Your task to perform on an android device: all mails in gmail Image 0: 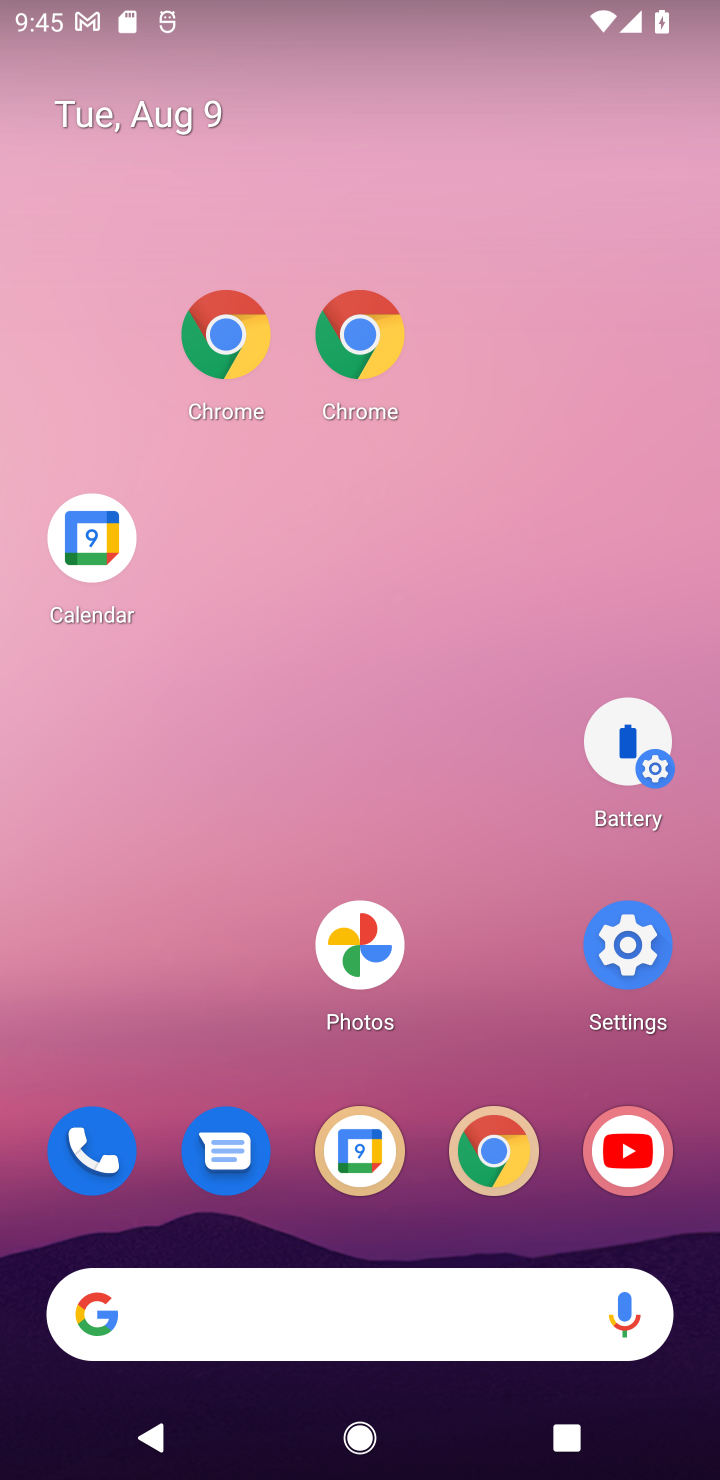
Step 0: click (315, 445)
Your task to perform on an android device: all mails in gmail Image 1: 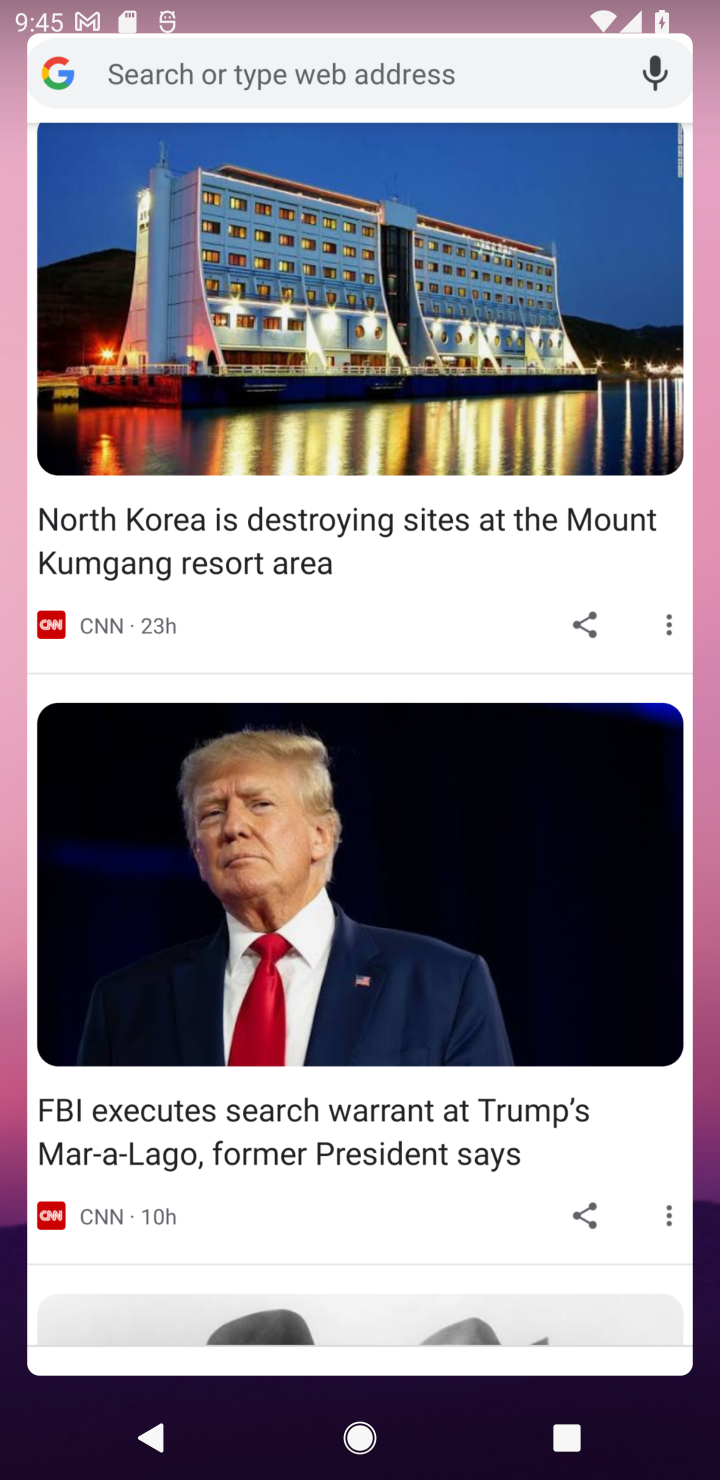
Step 1: press back button
Your task to perform on an android device: all mails in gmail Image 2: 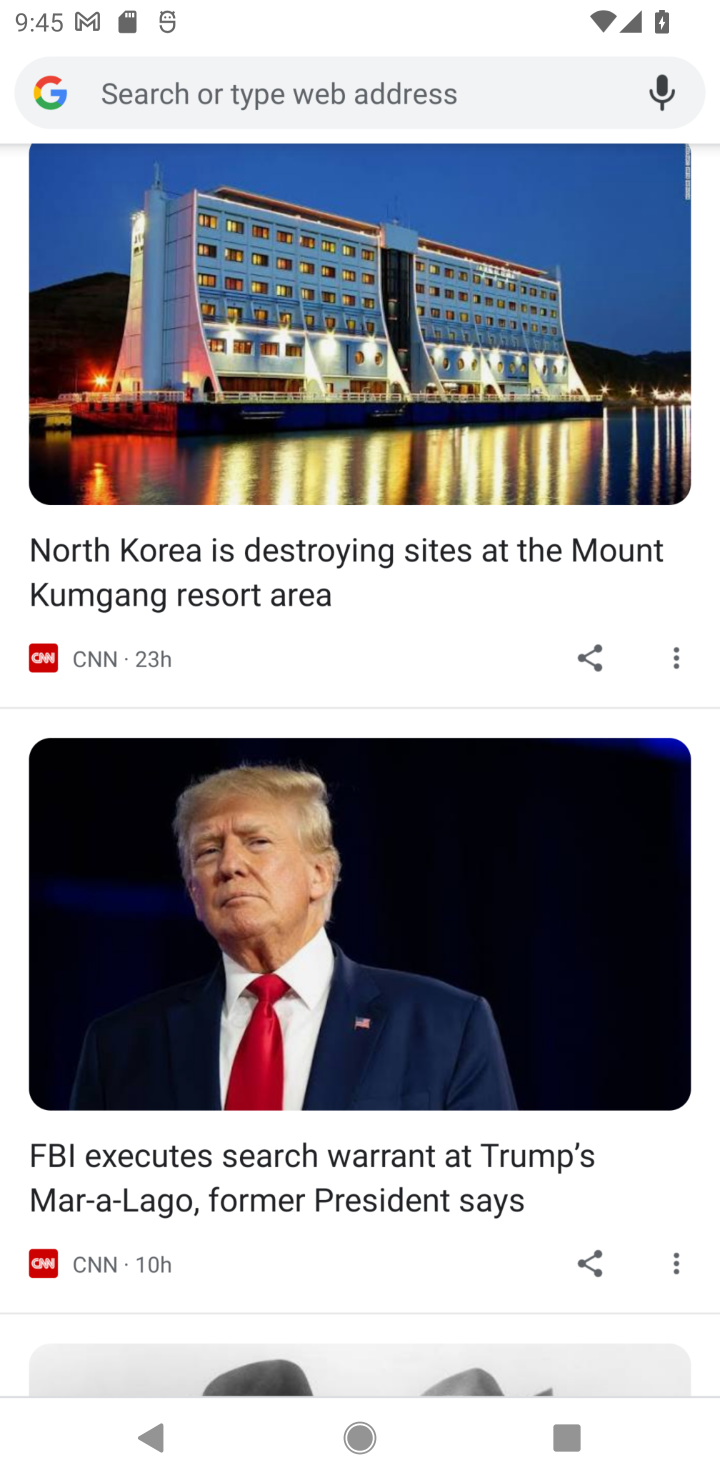
Step 2: drag from (409, 206) to (546, 400)
Your task to perform on an android device: all mails in gmail Image 3: 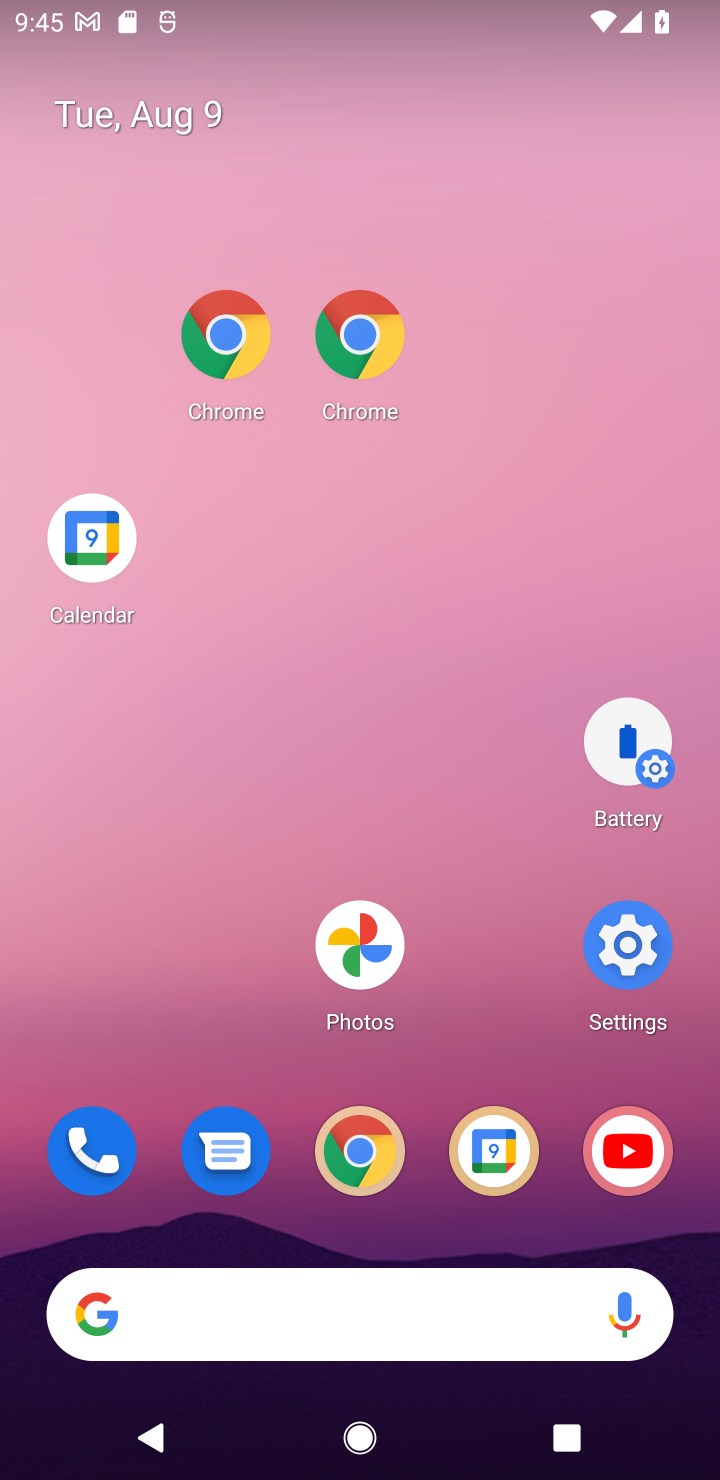
Step 3: press back button
Your task to perform on an android device: all mails in gmail Image 4: 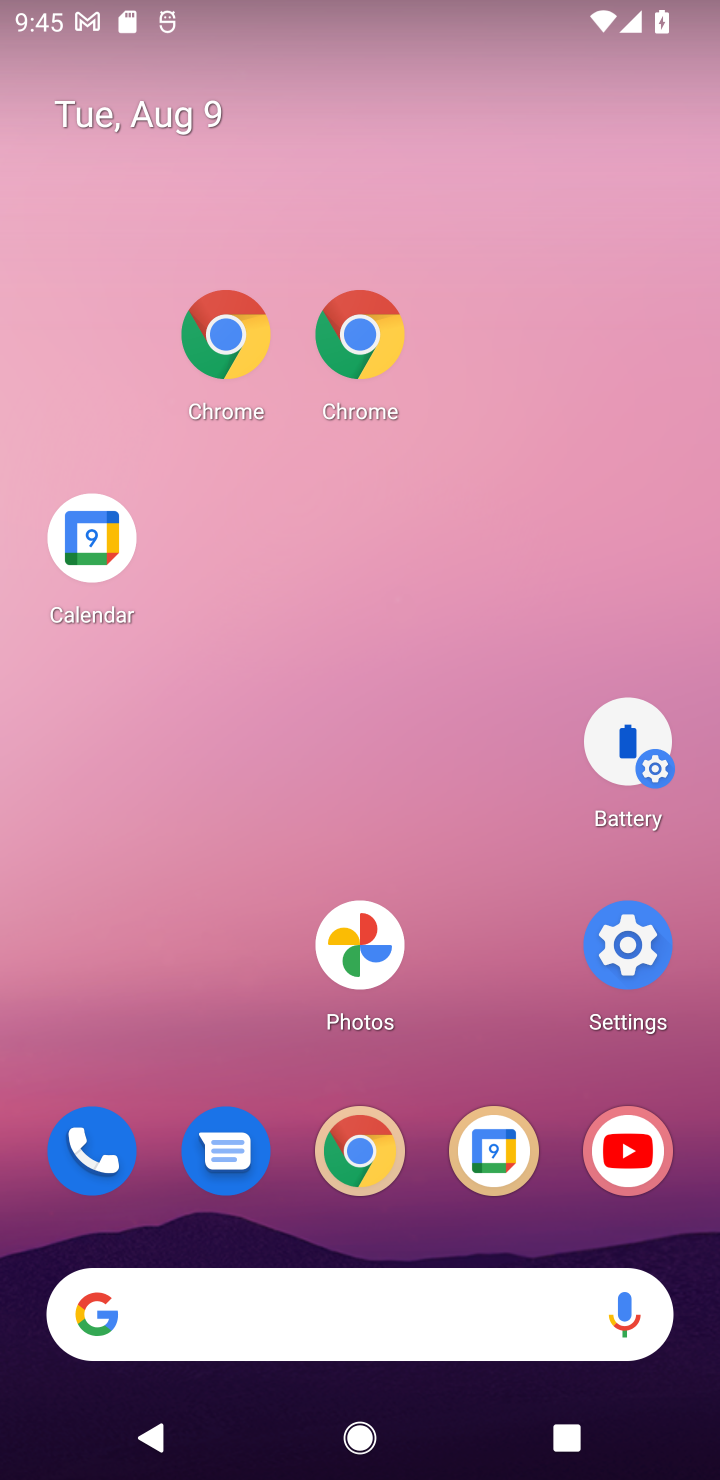
Step 4: press back button
Your task to perform on an android device: all mails in gmail Image 5: 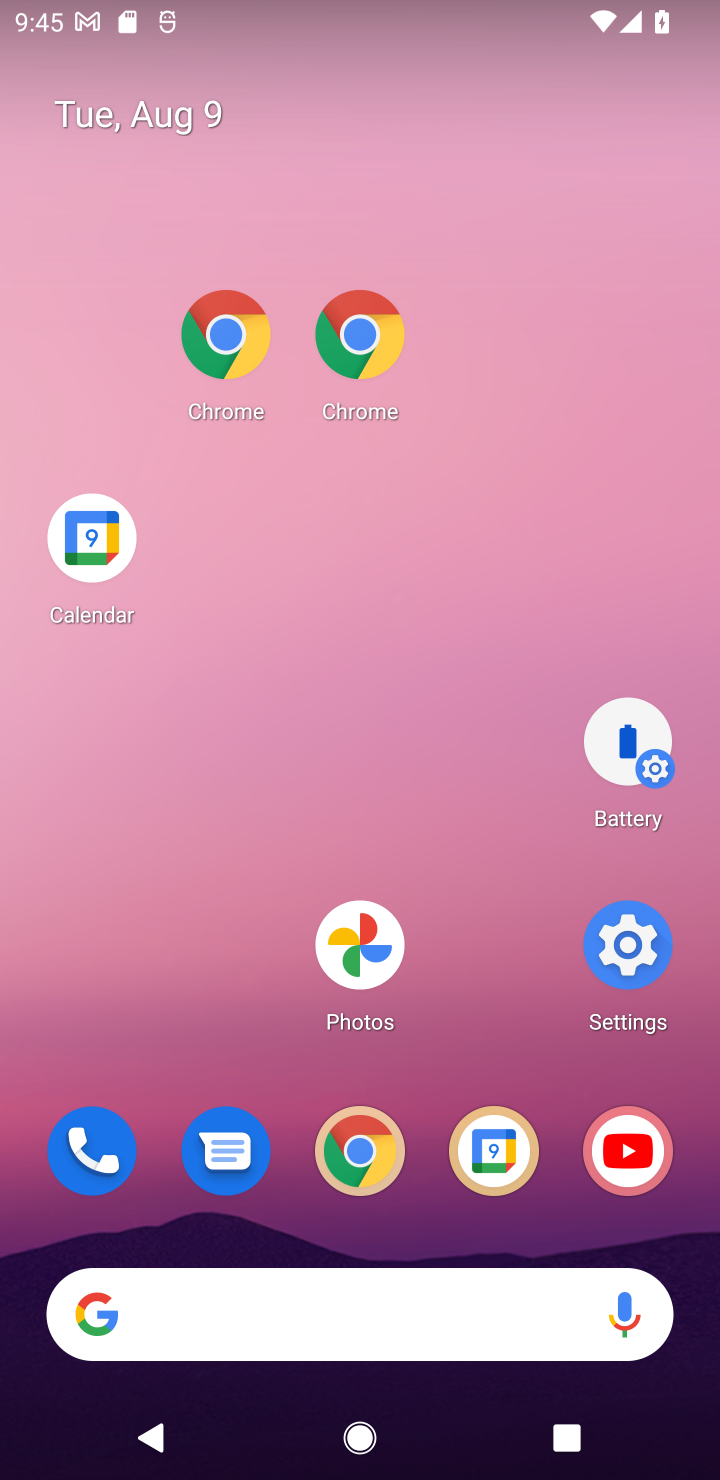
Step 5: click (618, 938)
Your task to perform on an android device: all mails in gmail Image 6: 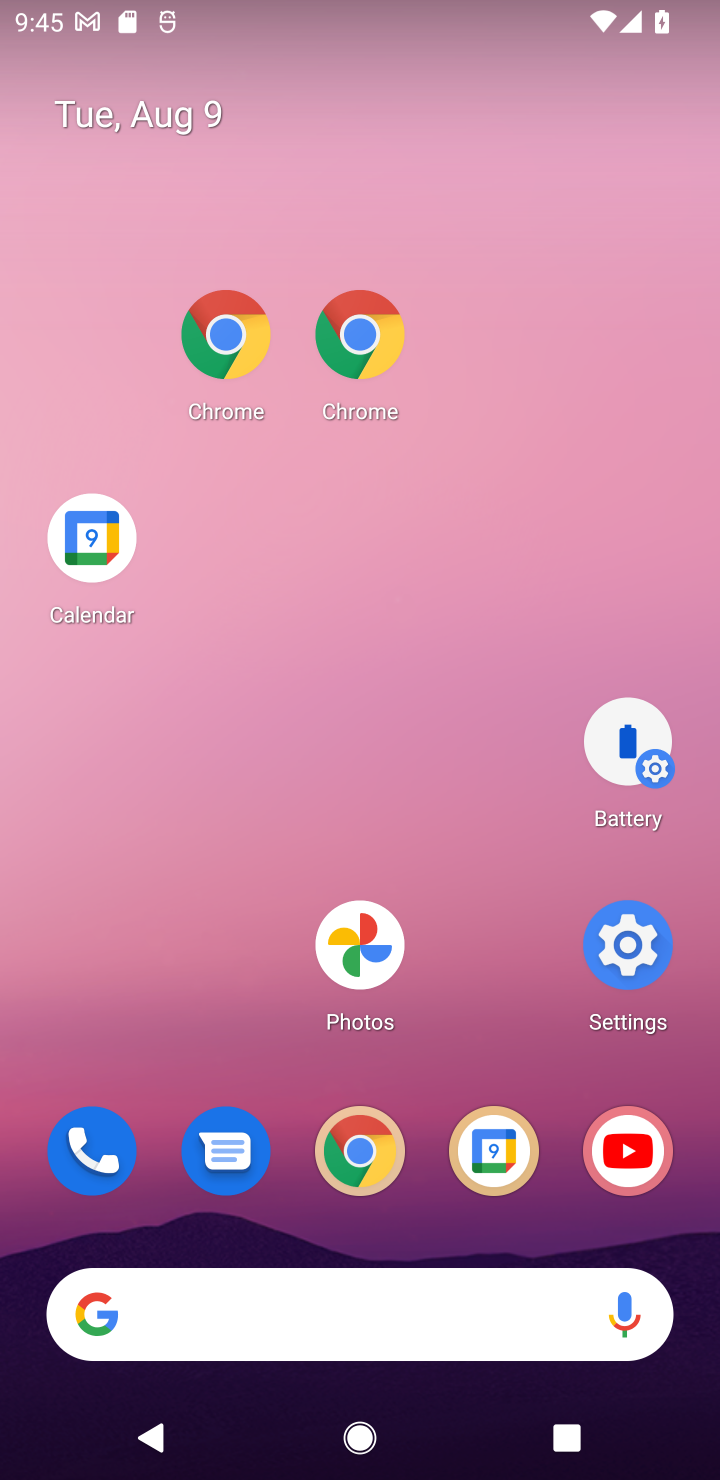
Step 6: click (614, 942)
Your task to perform on an android device: all mails in gmail Image 7: 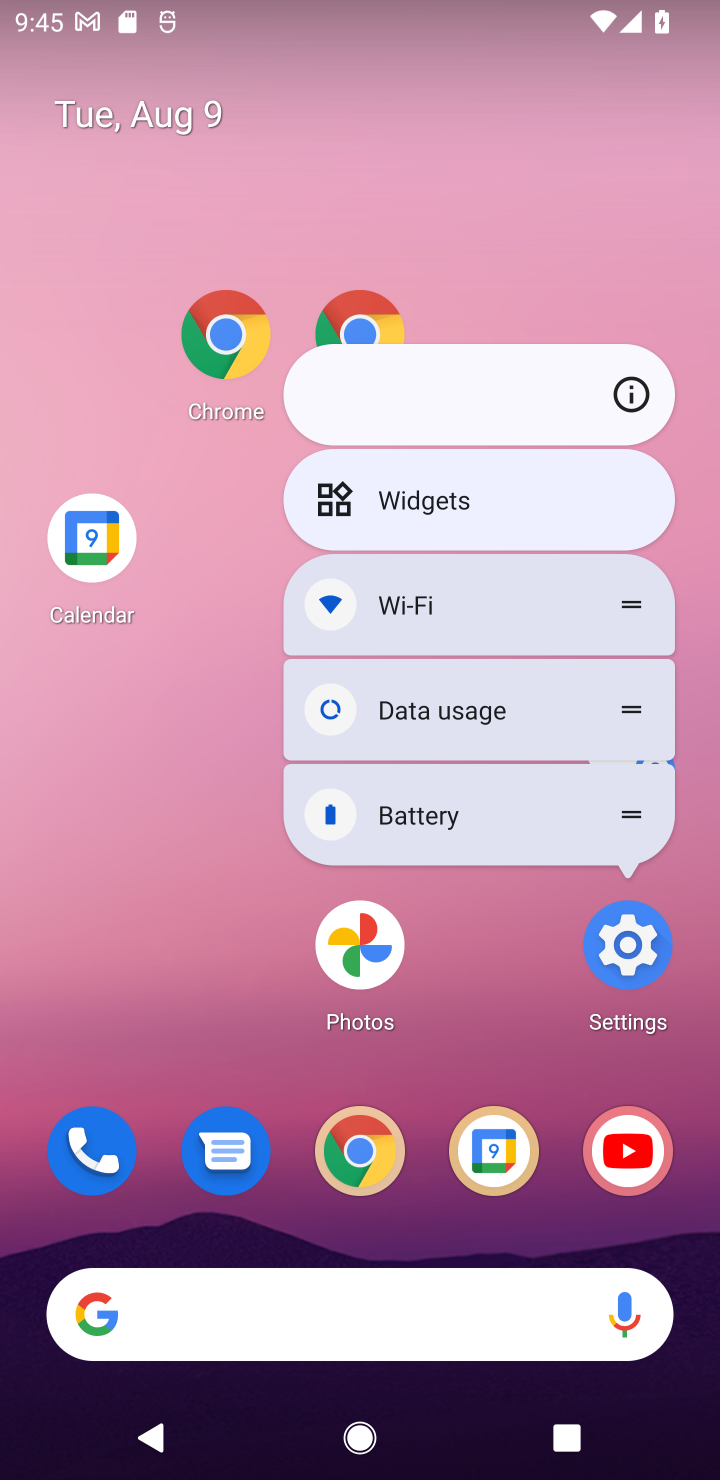
Step 7: click (81, 763)
Your task to perform on an android device: all mails in gmail Image 8: 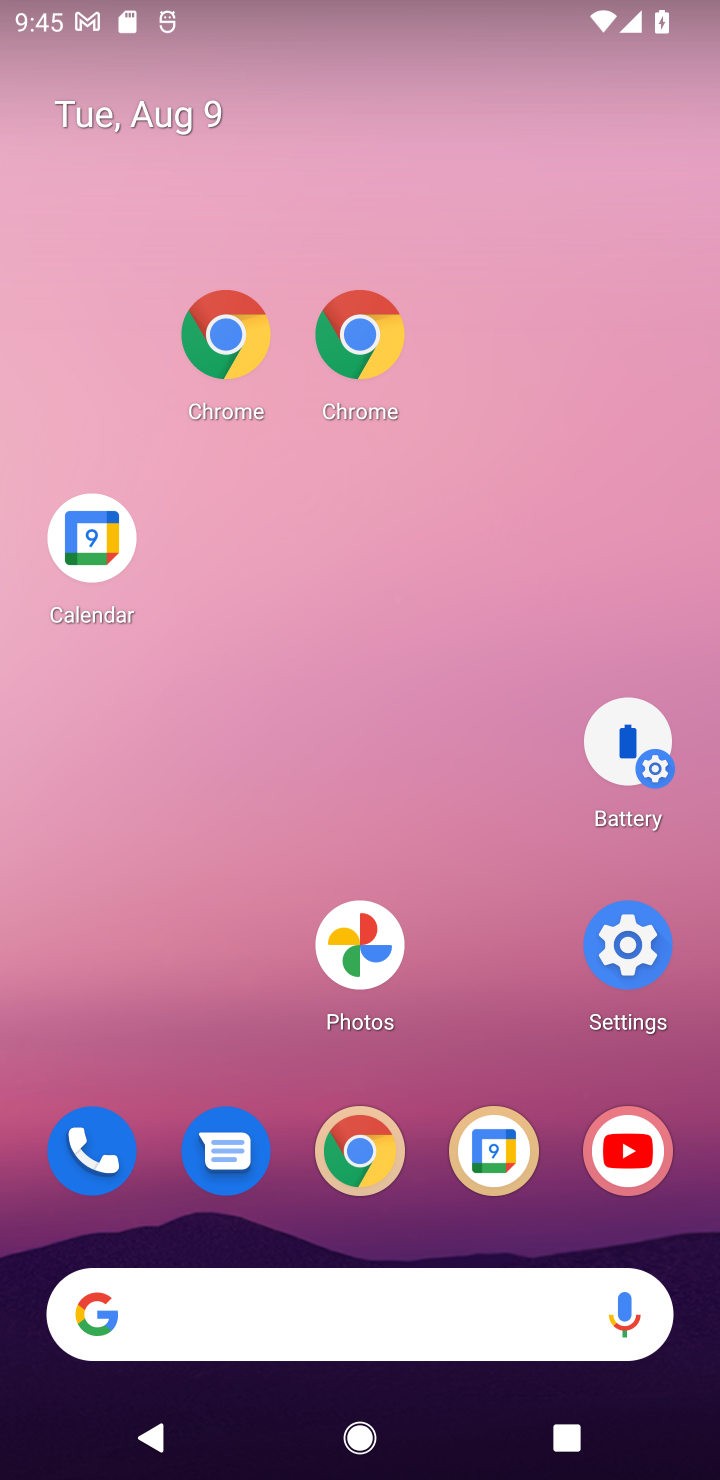
Step 8: press back button
Your task to perform on an android device: all mails in gmail Image 9: 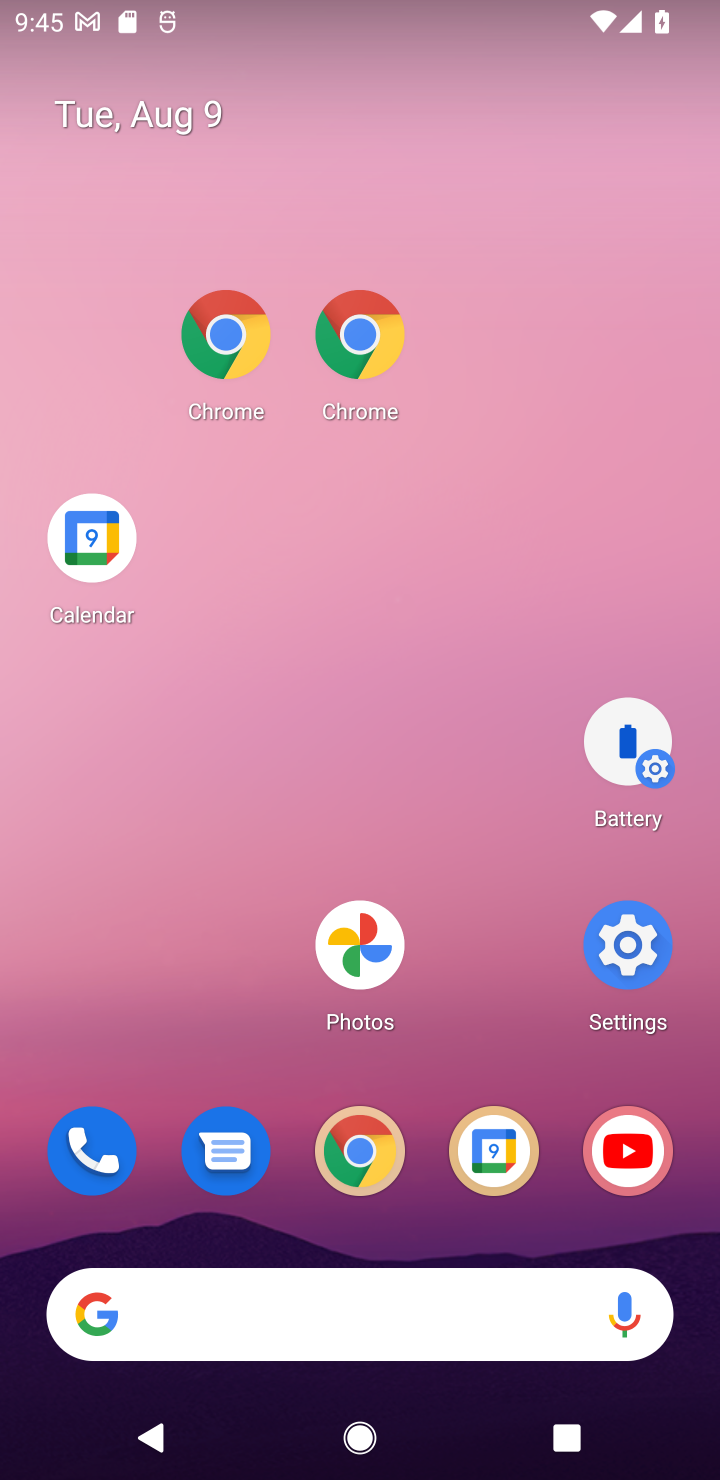
Step 9: drag from (419, 1261) to (364, 724)
Your task to perform on an android device: all mails in gmail Image 10: 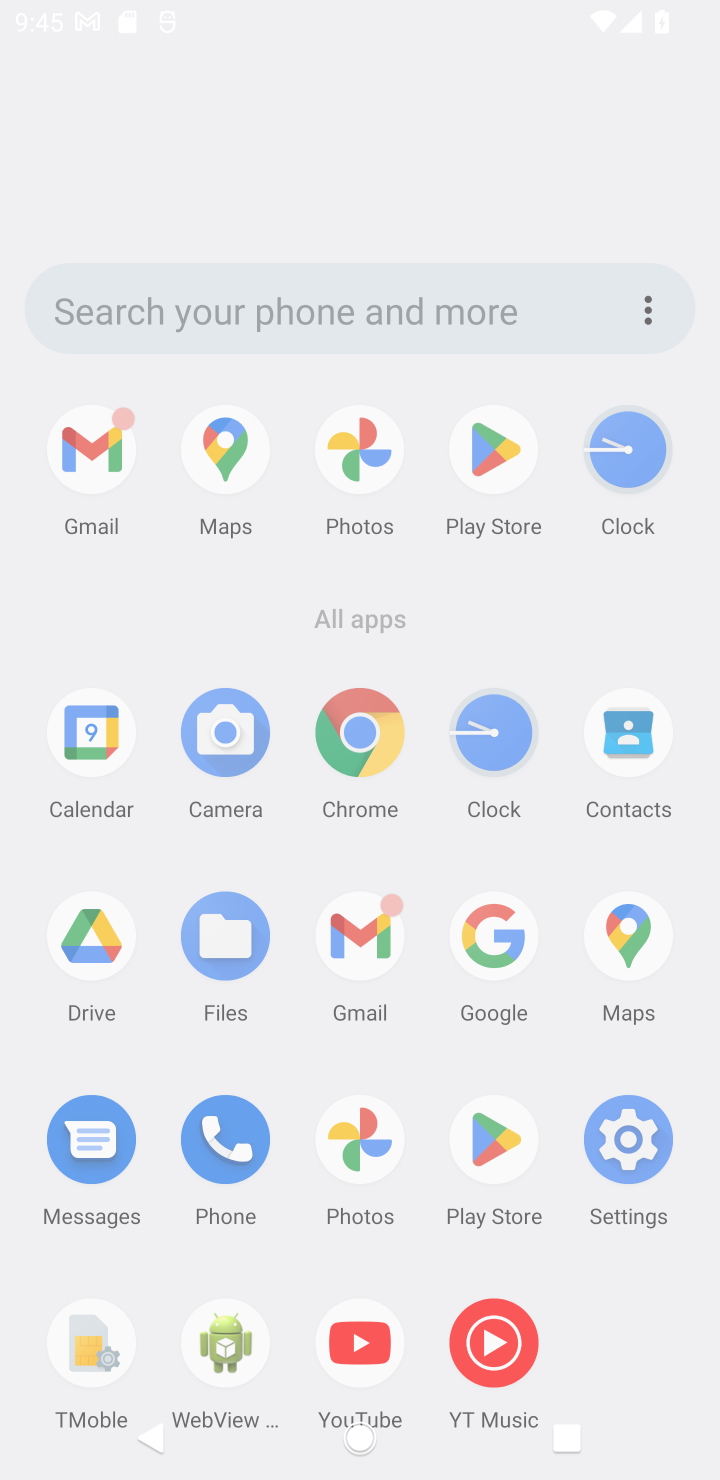
Step 10: click (467, 756)
Your task to perform on an android device: all mails in gmail Image 11: 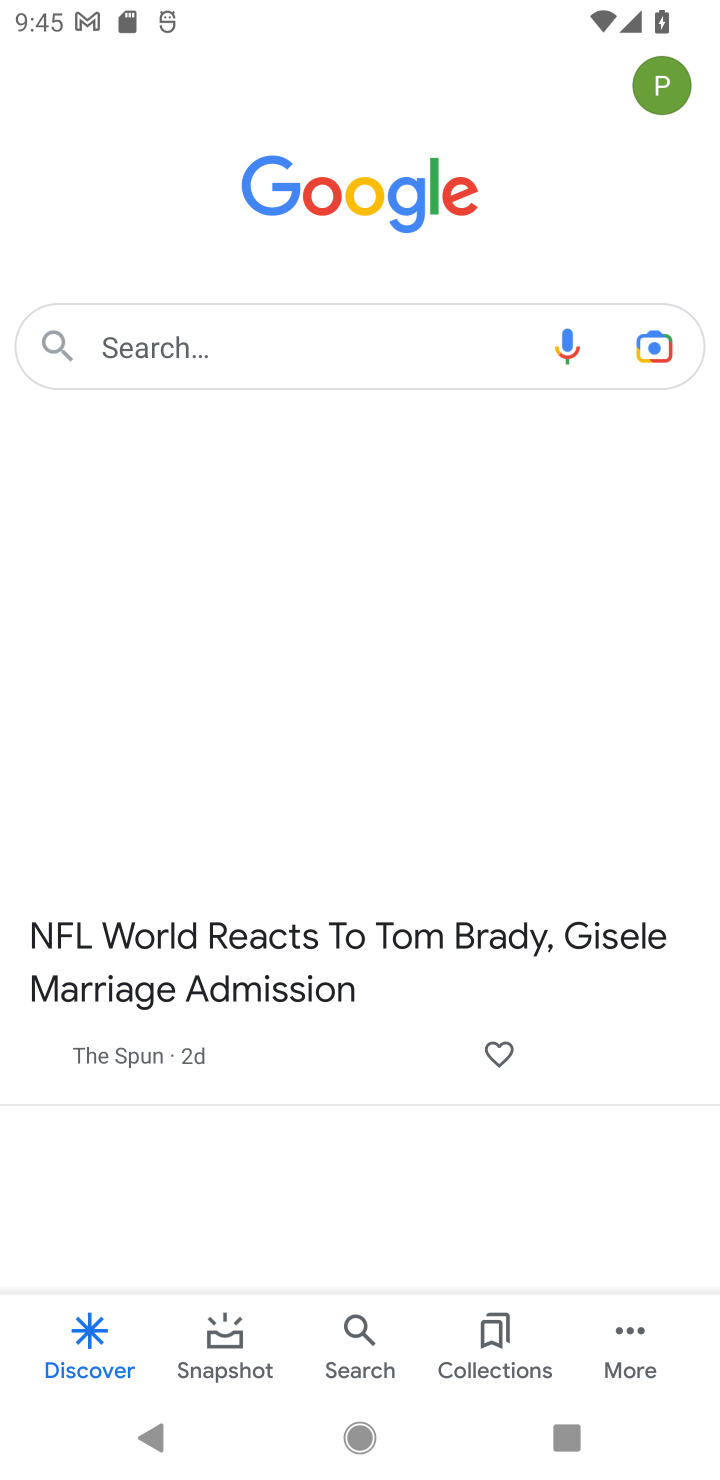
Step 11: press back button
Your task to perform on an android device: all mails in gmail Image 12: 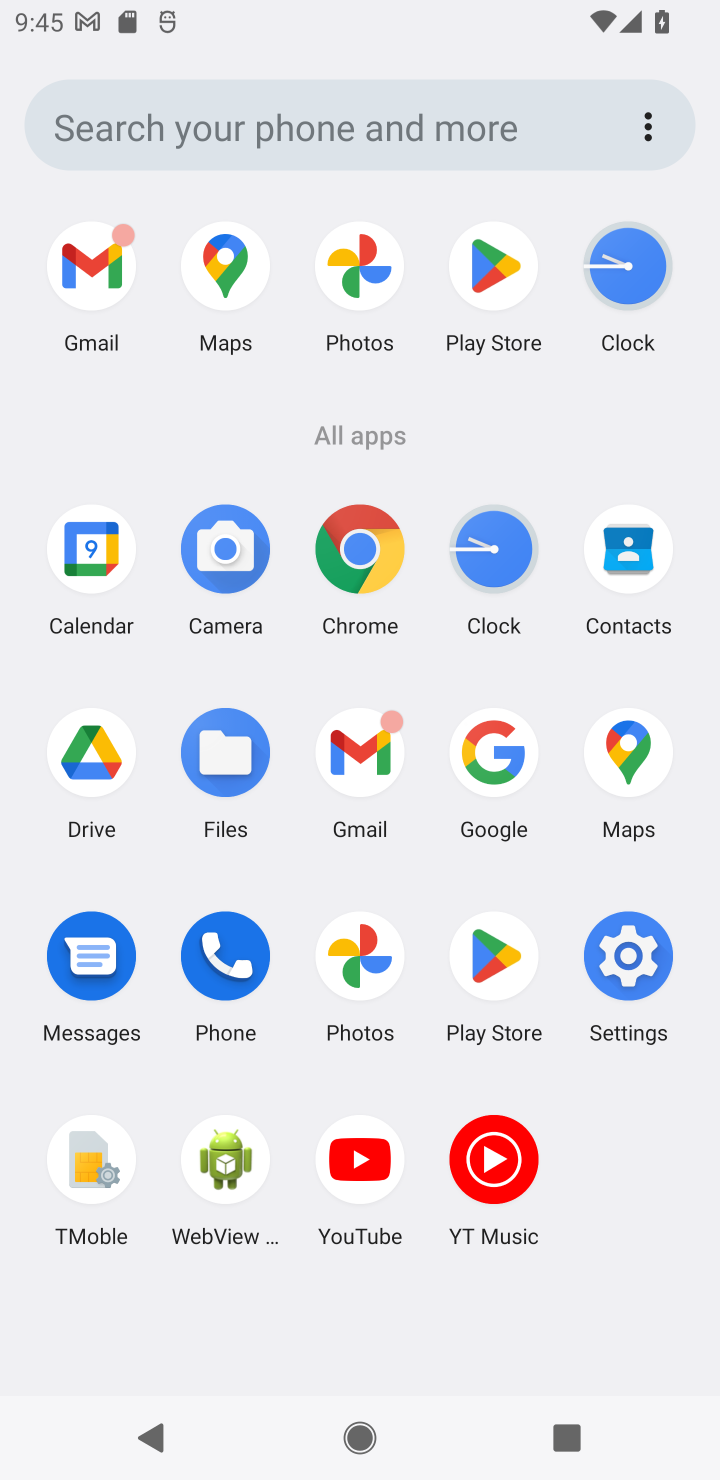
Step 12: click (339, 750)
Your task to perform on an android device: all mails in gmail Image 13: 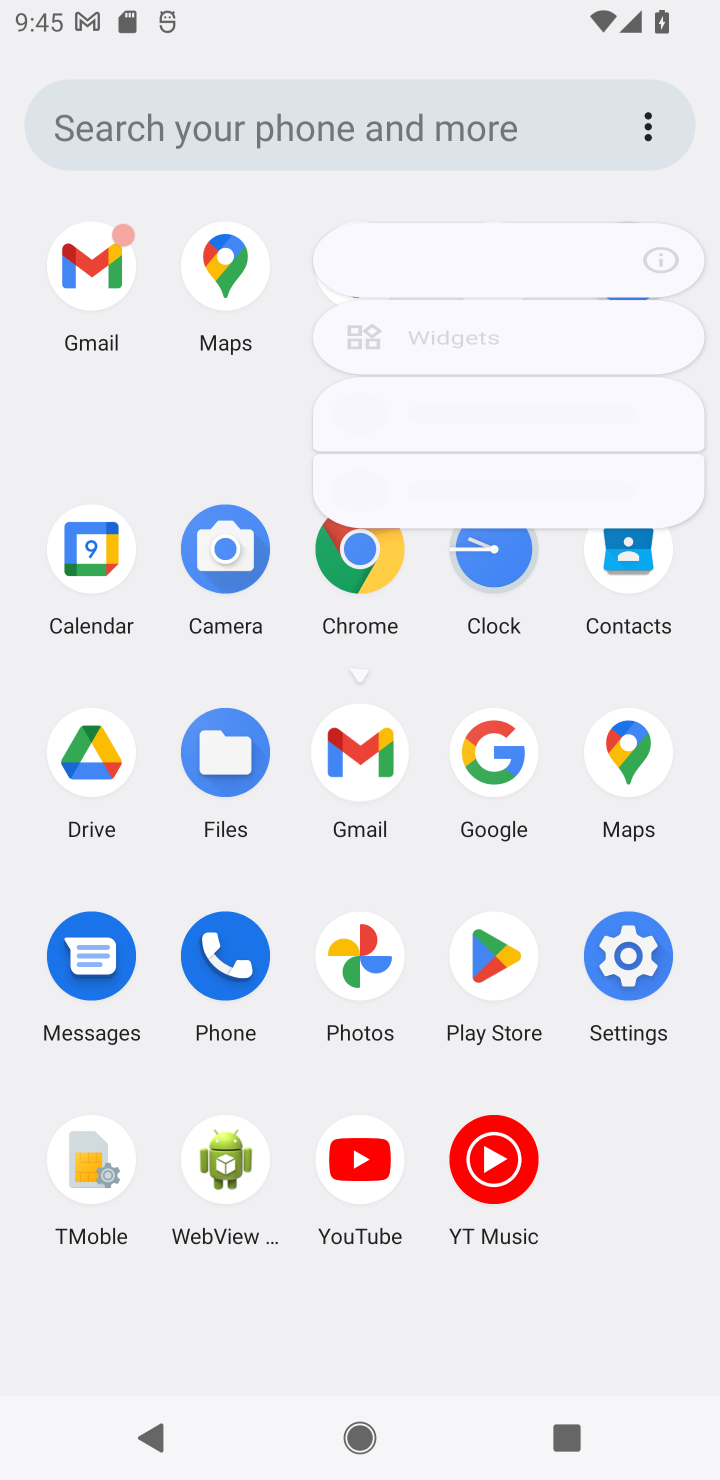
Step 13: click (358, 756)
Your task to perform on an android device: all mails in gmail Image 14: 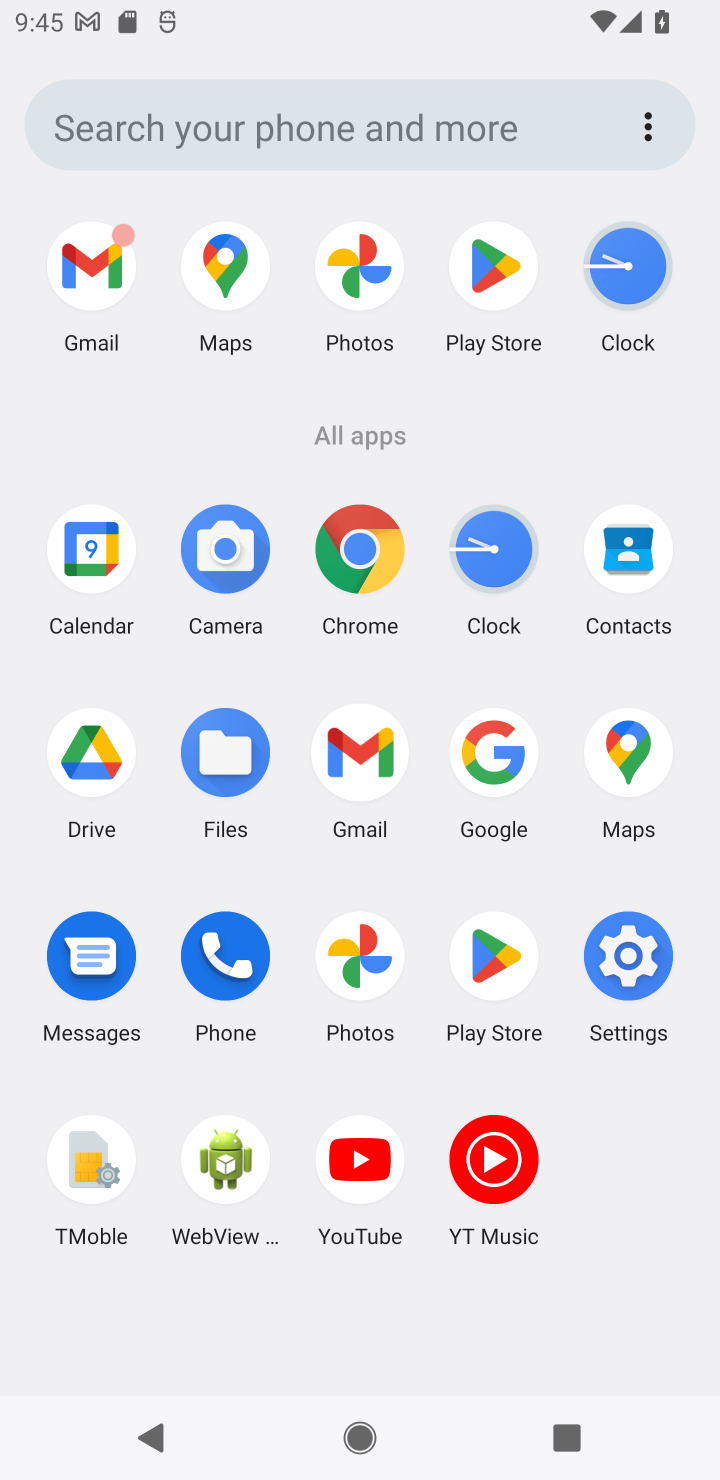
Step 14: click (366, 752)
Your task to perform on an android device: all mails in gmail Image 15: 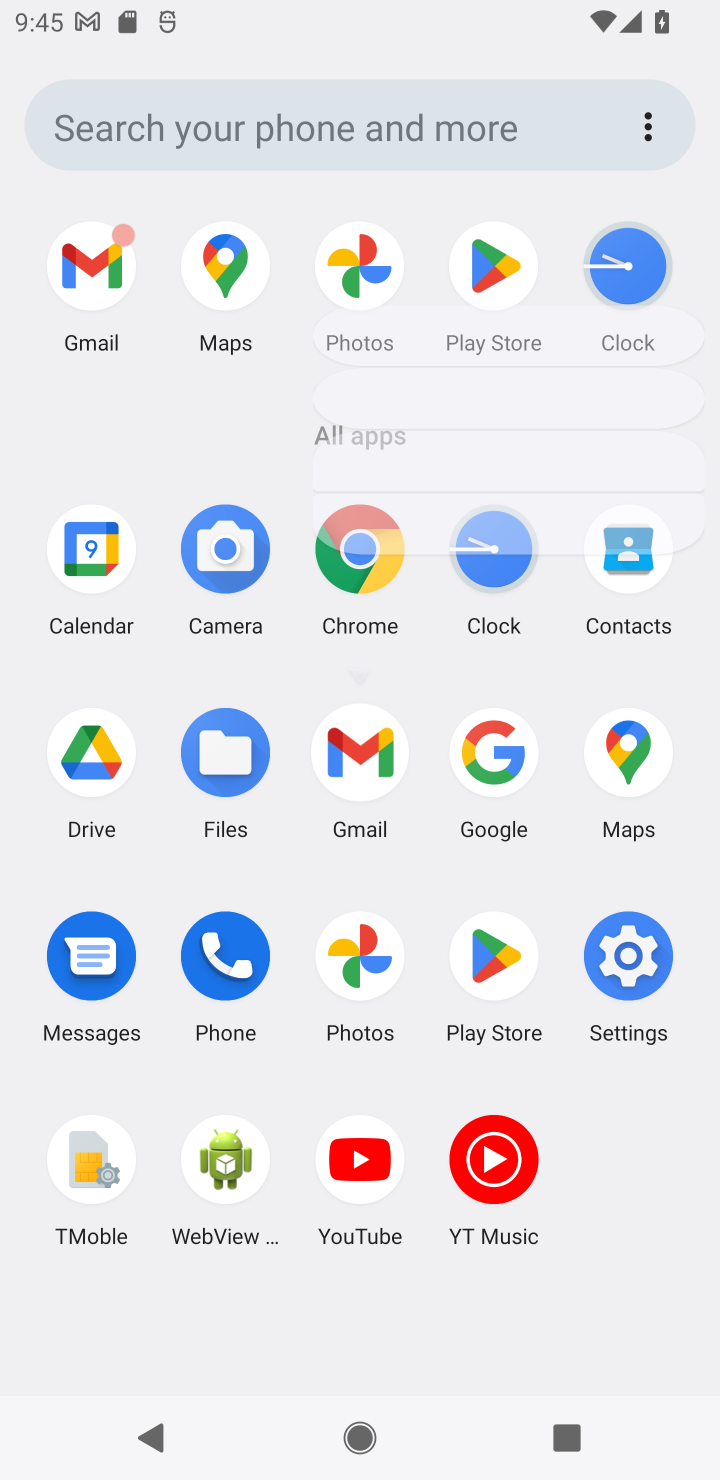
Step 15: click (366, 752)
Your task to perform on an android device: all mails in gmail Image 16: 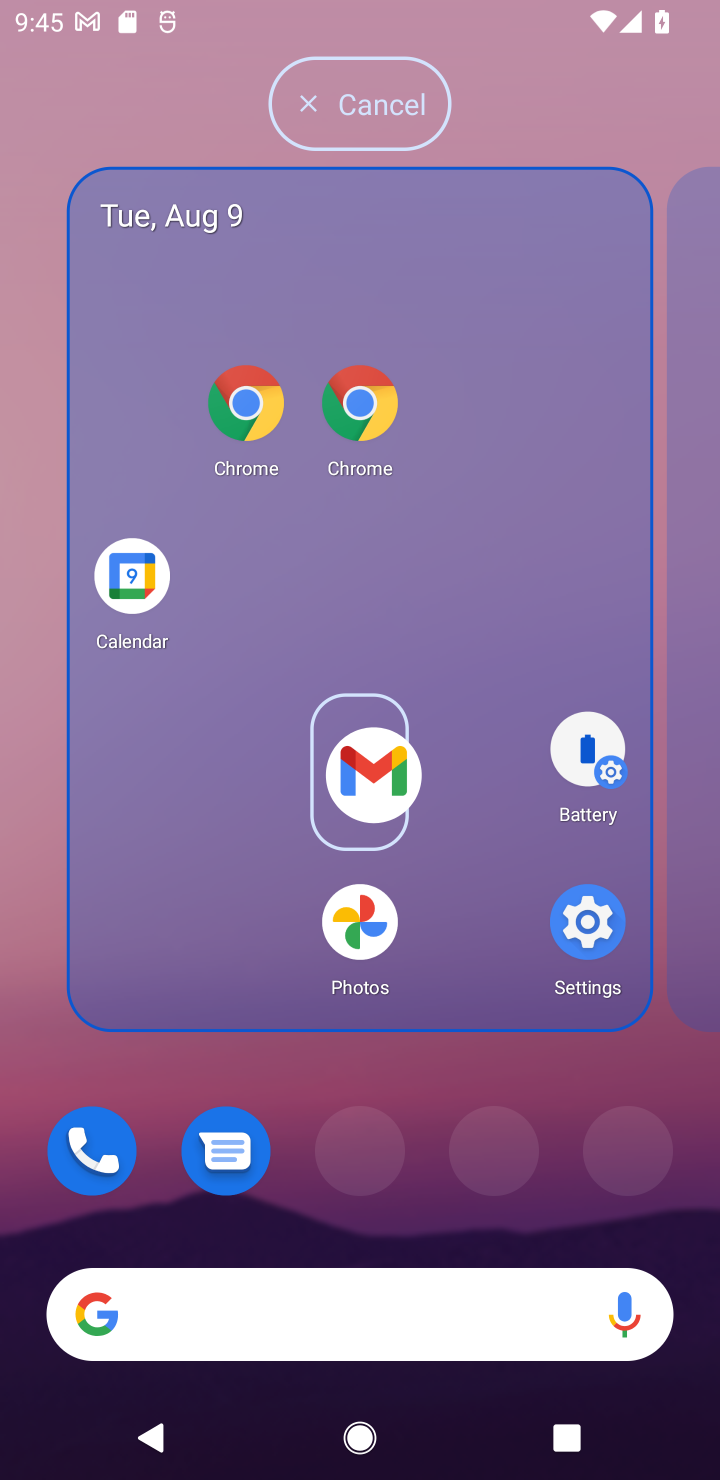
Step 16: click (377, 778)
Your task to perform on an android device: all mails in gmail Image 17: 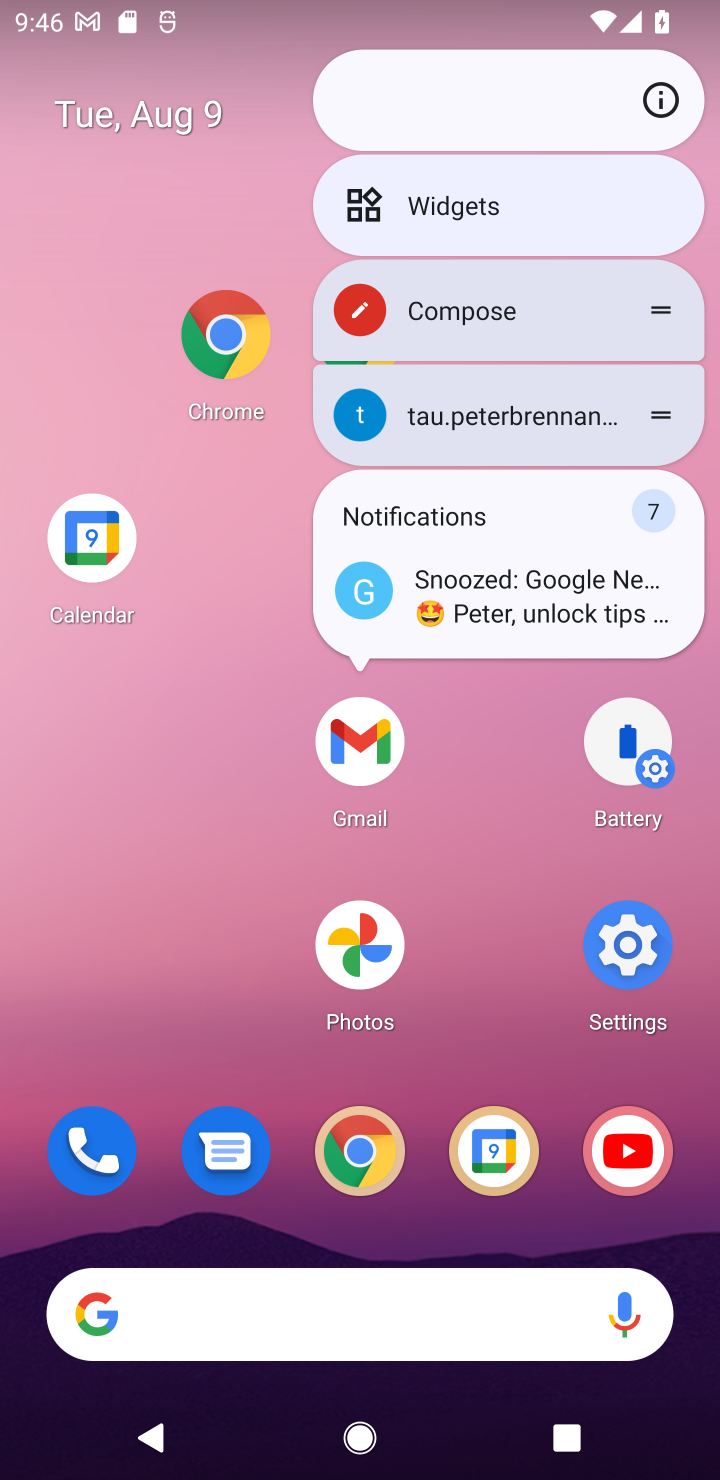
Step 17: click (310, 422)
Your task to perform on an android device: all mails in gmail Image 18: 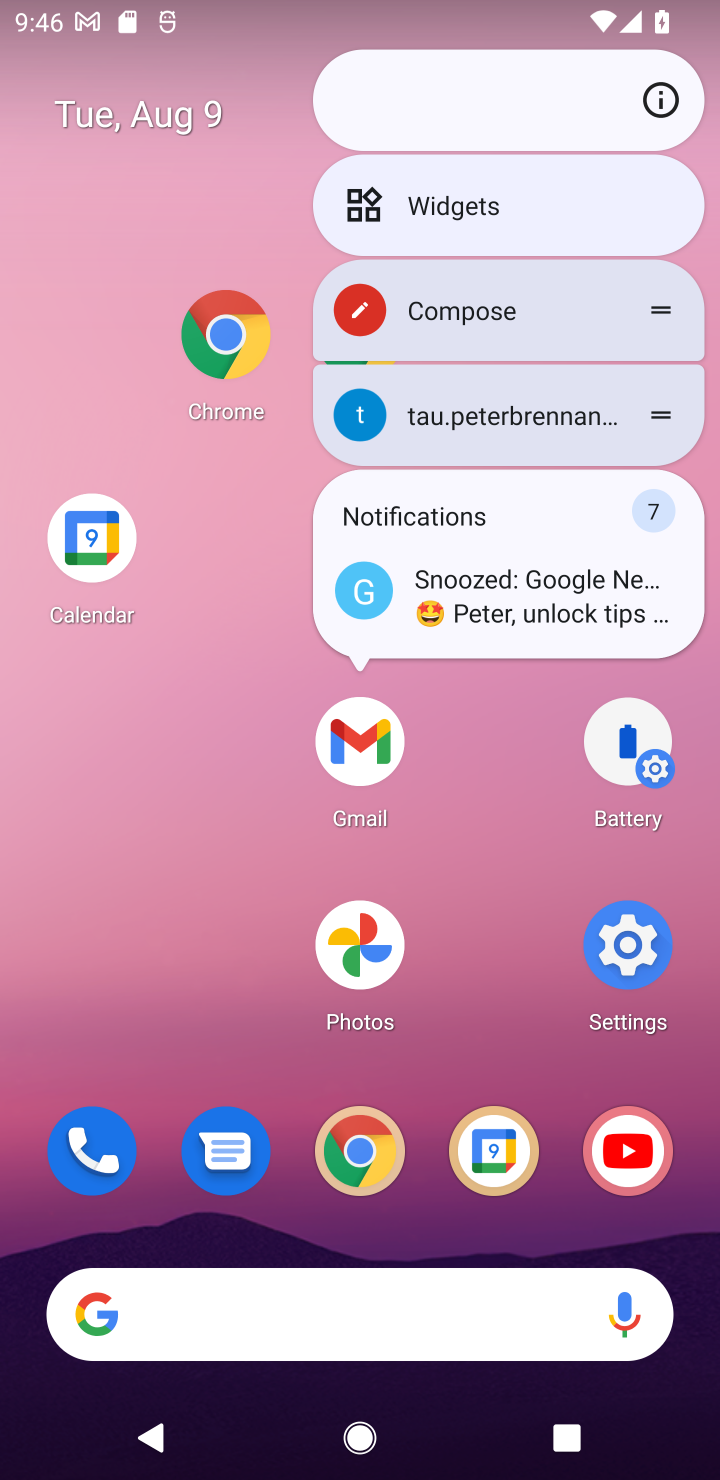
Step 18: click (364, 417)
Your task to perform on an android device: all mails in gmail Image 19: 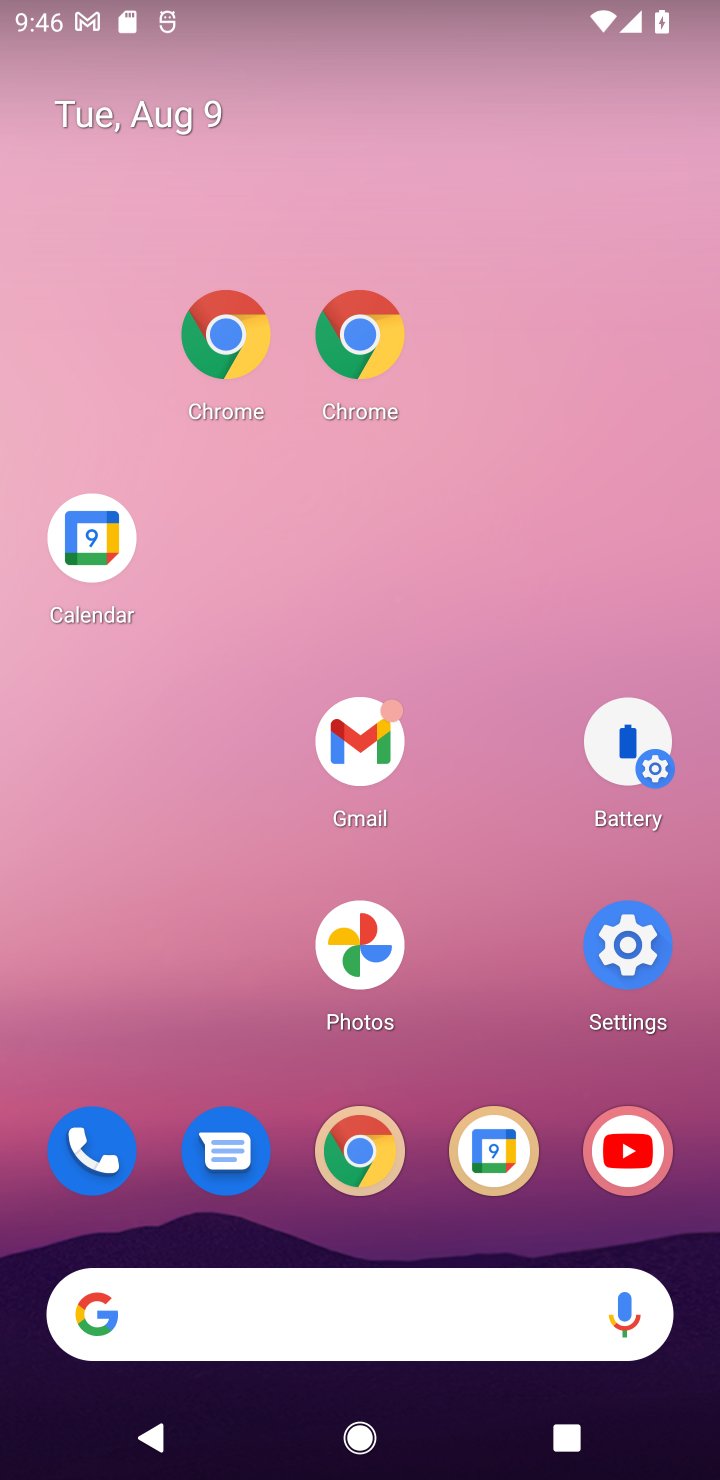
Step 19: click (369, 762)
Your task to perform on an android device: all mails in gmail Image 20: 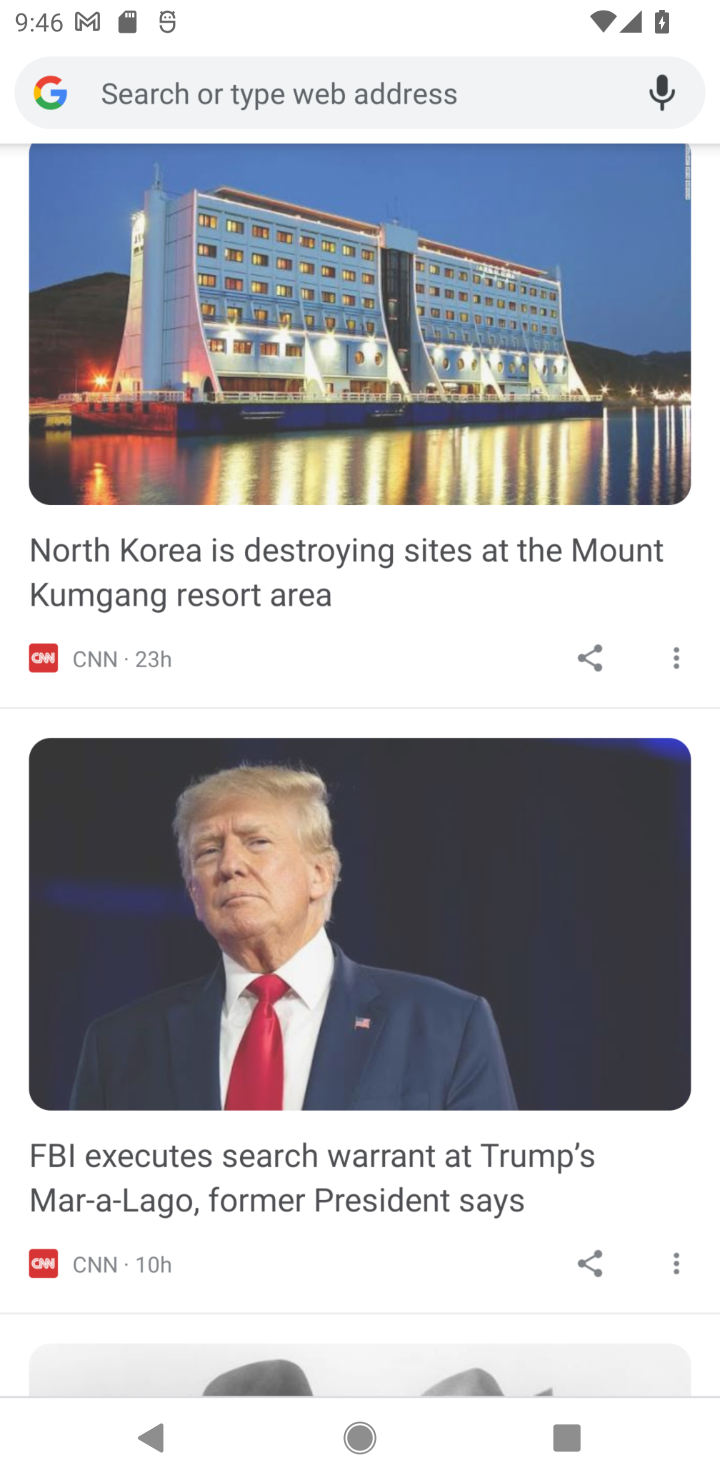
Step 20: click (425, 448)
Your task to perform on an android device: all mails in gmail Image 21: 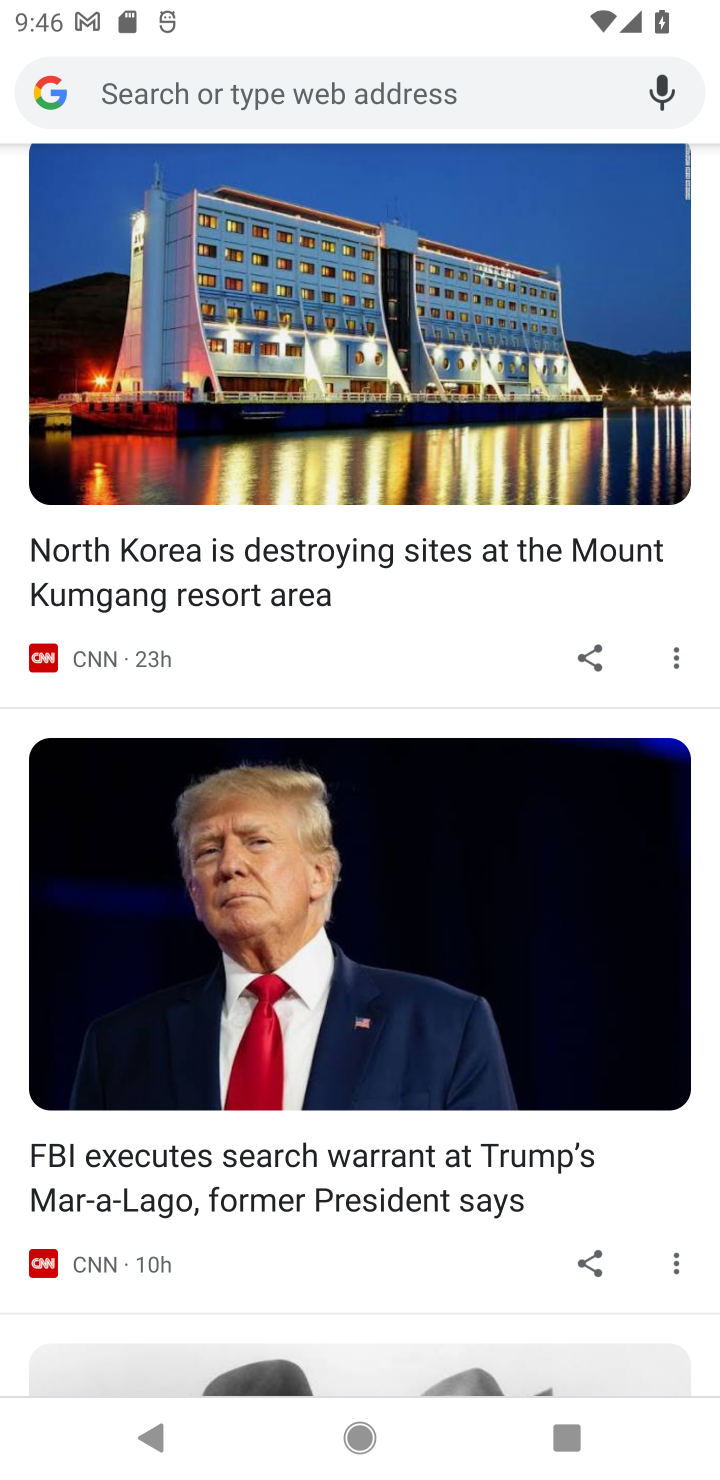
Step 21: task complete